Your task to perform on an android device: When is my next meeting? Image 0: 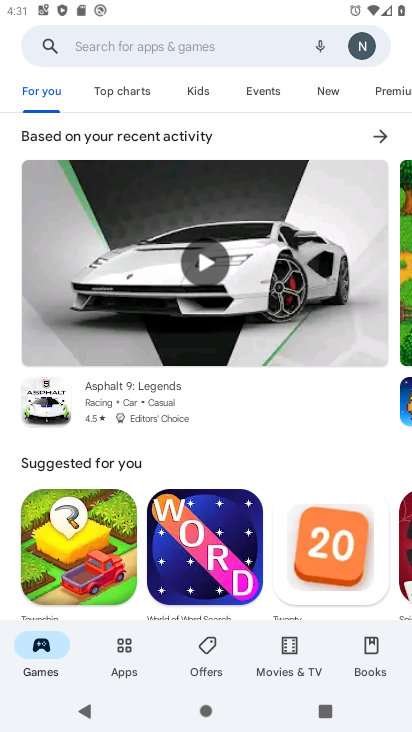
Step 0: press home button
Your task to perform on an android device: When is my next meeting? Image 1: 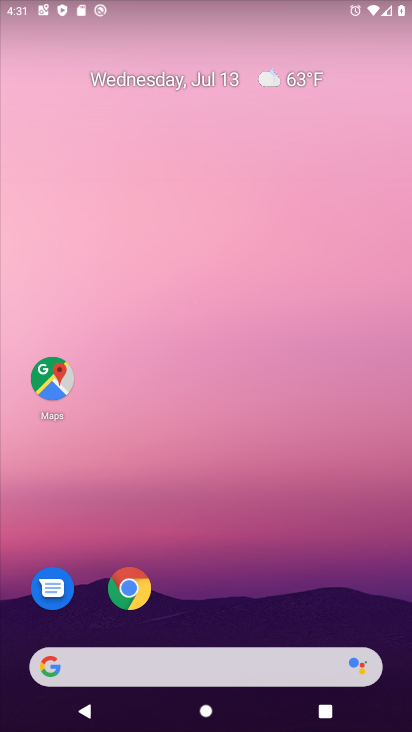
Step 1: drag from (205, 658) to (280, 215)
Your task to perform on an android device: When is my next meeting? Image 2: 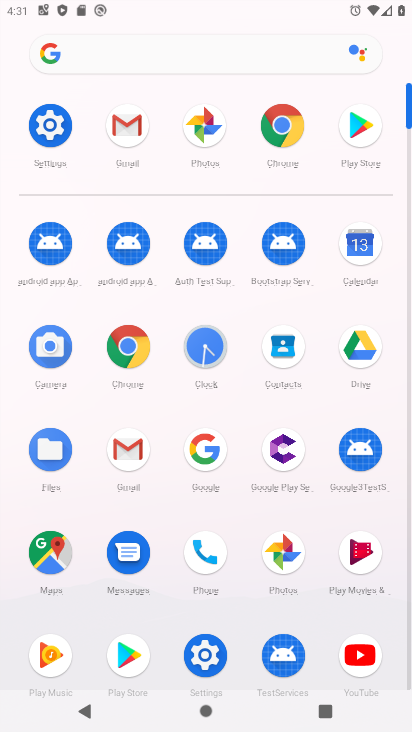
Step 2: click (358, 245)
Your task to perform on an android device: When is my next meeting? Image 3: 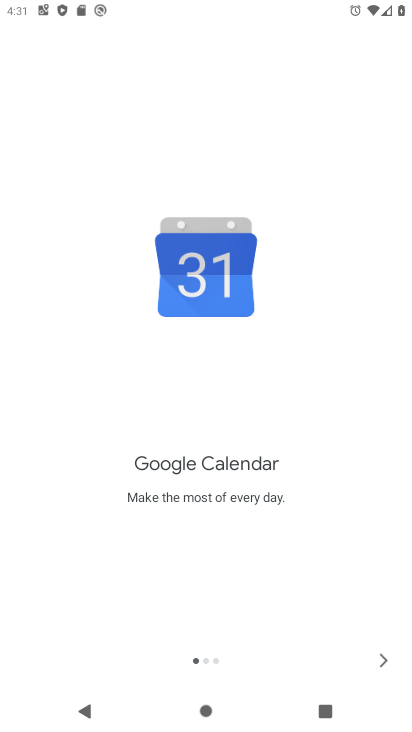
Step 3: click (386, 658)
Your task to perform on an android device: When is my next meeting? Image 4: 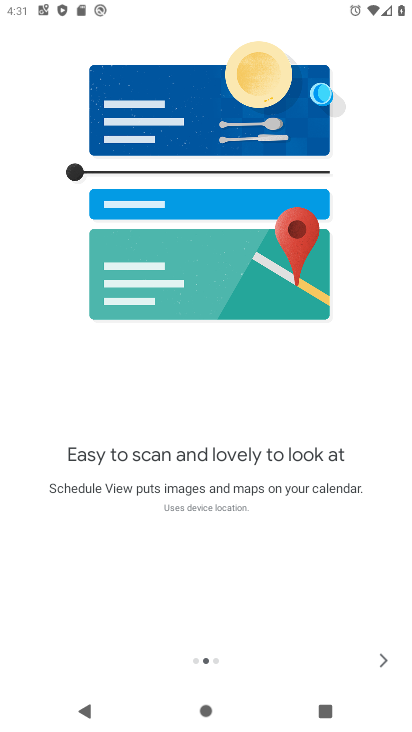
Step 4: click (386, 658)
Your task to perform on an android device: When is my next meeting? Image 5: 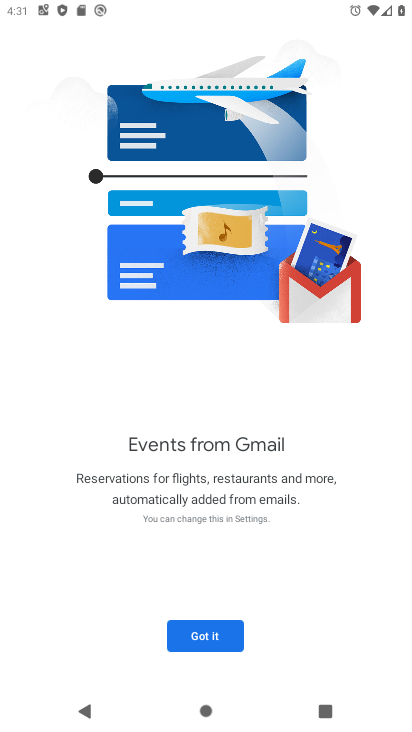
Step 5: click (207, 635)
Your task to perform on an android device: When is my next meeting? Image 6: 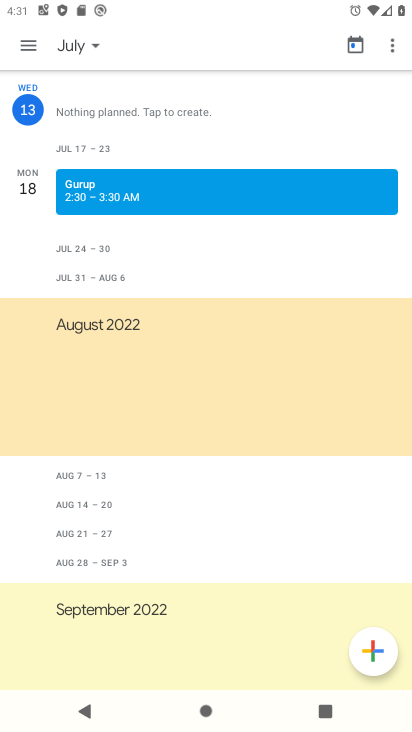
Step 6: click (93, 48)
Your task to perform on an android device: When is my next meeting? Image 7: 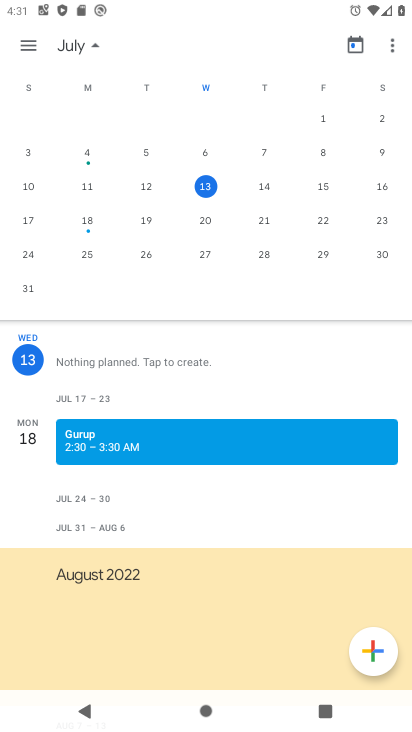
Step 7: click (87, 224)
Your task to perform on an android device: When is my next meeting? Image 8: 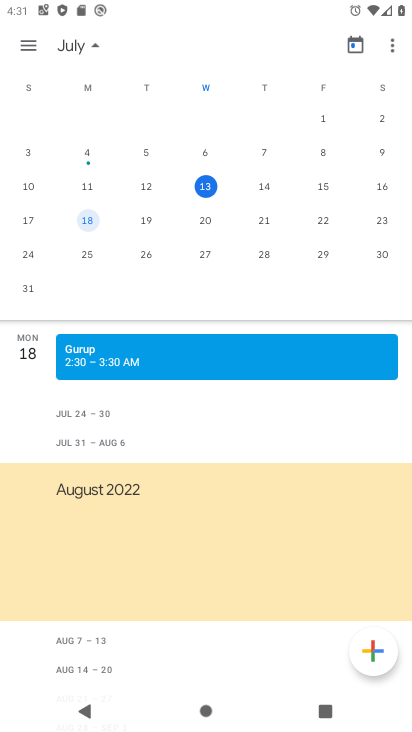
Step 8: click (28, 49)
Your task to perform on an android device: When is my next meeting? Image 9: 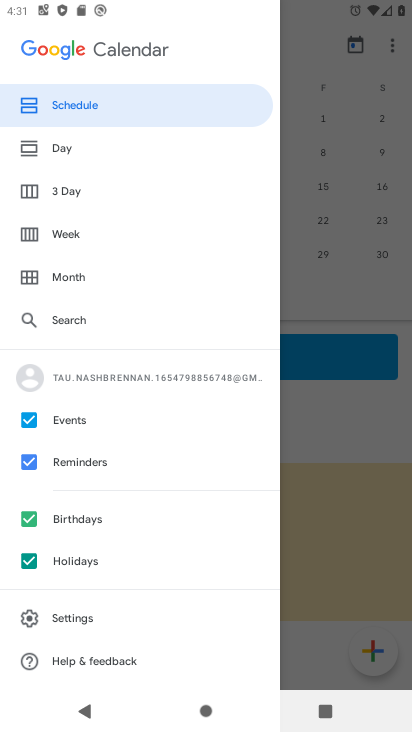
Step 9: click (73, 234)
Your task to perform on an android device: When is my next meeting? Image 10: 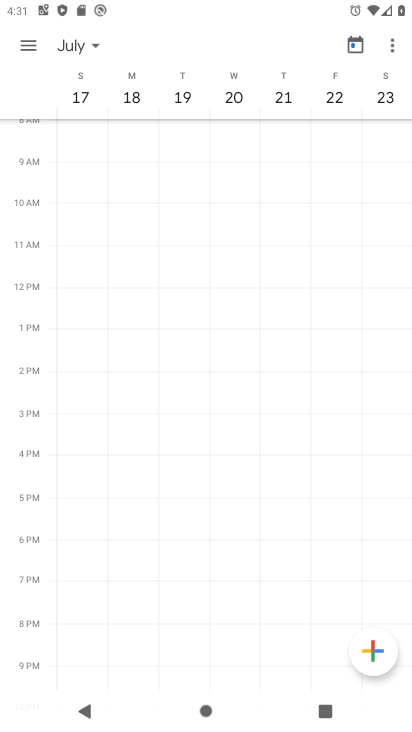
Step 10: task complete